Your task to perform on an android device: toggle translation in the chrome app Image 0: 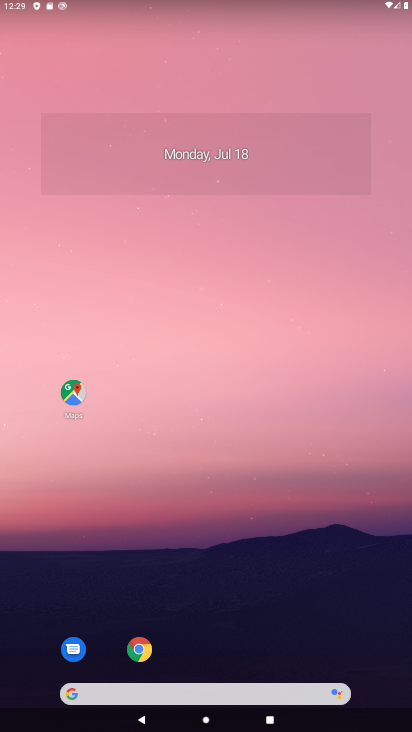
Step 0: click (148, 657)
Your task to perform on an android device: toggle translation in the chrome app Image 1: 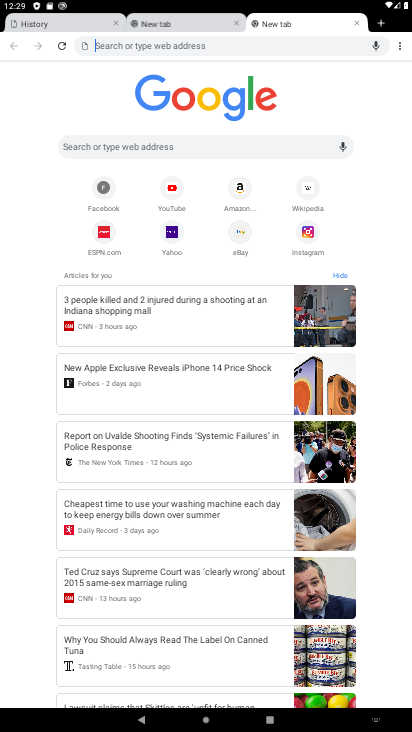
Step 1: click (400, 39)
Your task to perform on an android device: toggle translation in the chrome app Image 2: 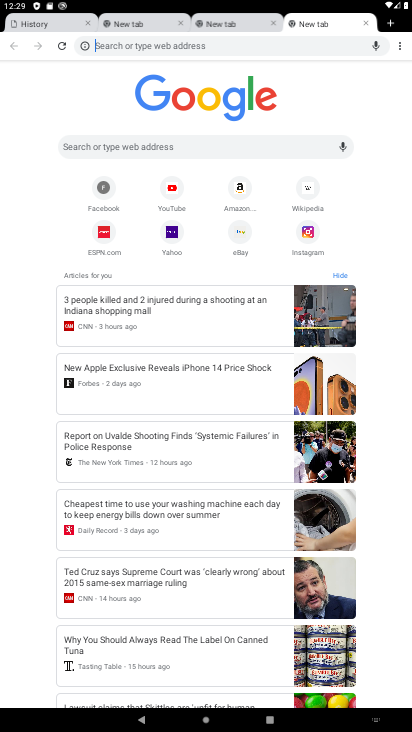
Step 2: click (401, 42)
Your task to perform on an android device: toggle translation in the chrome app Image 3: 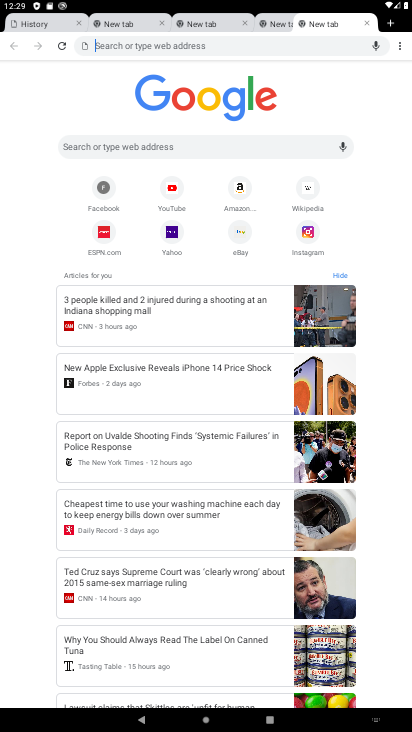
Step 3: task complete